Your task to perform on an android device: Show me popular videos on Youtube Image 0: 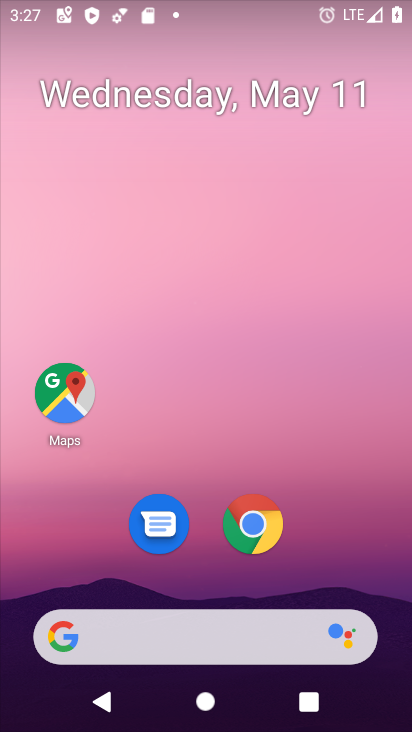
Step 0: drag from (306, 506) to (295, 50)
Your task to perform on an android device: Show me popular videos on Youtube Image 1: 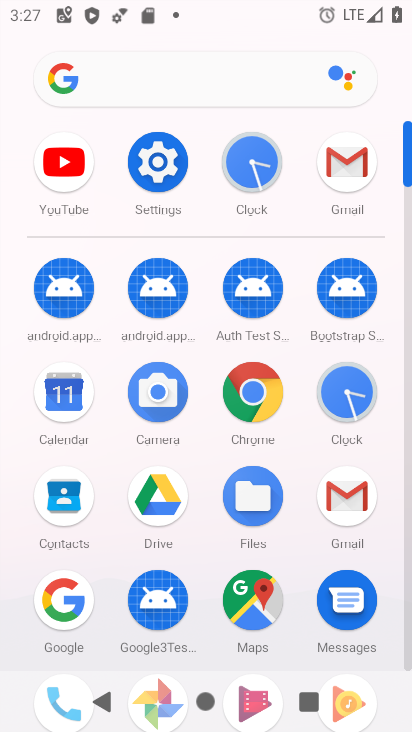
Step 1: drag from (298, 516) to (291, 396)
Your task to perform on an android device: Show me popular videos on Youtube Image 2: 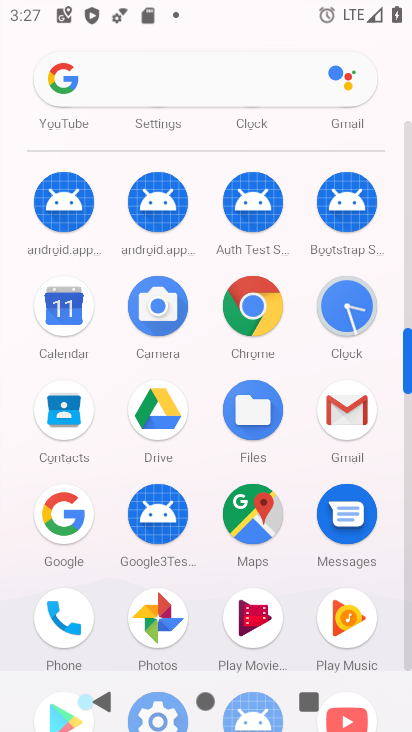
Step 2: drag from (123, 225) to (116, 398)
Your task to perform on an android device: Show me popular videos on Youtube Image 3: 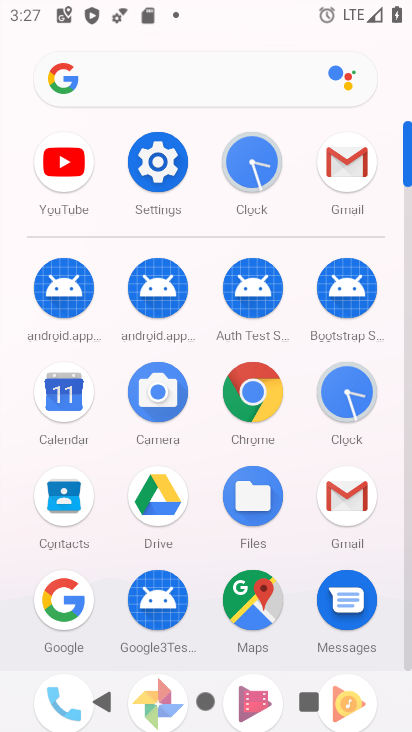
Step 3: click (68, 165)
Your task to perform on an android device: Show me popular videos on Youtube Image 4: 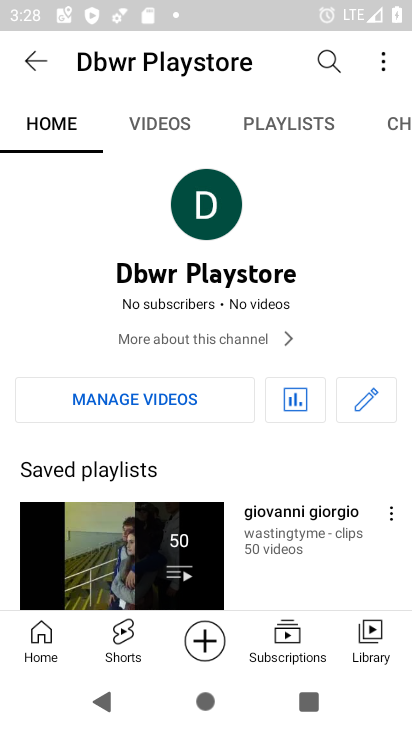
Step 4: click (36, 60)
Your task to perform on an android device: Show me popular videos on Youtube Image 5: 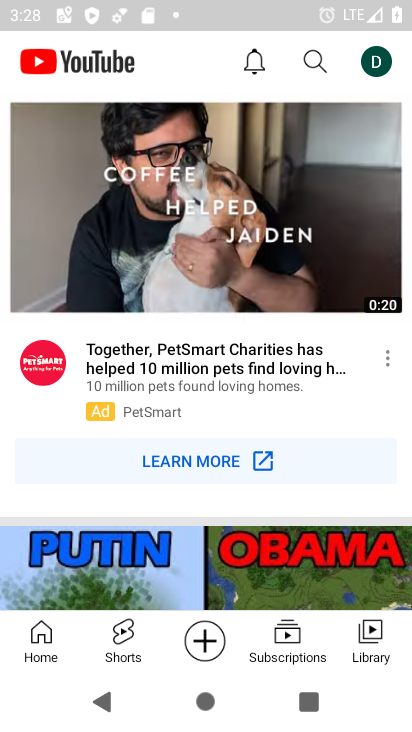
Step 5: click (310, 57)
Your task to perform on an android device: Show me popular videos on Youtube Image 6: 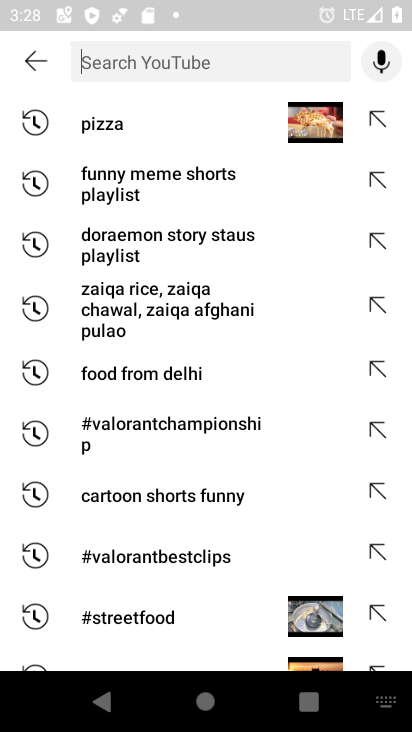
Step 6: type "popular videos"
Your task to perform on an android device: Show me popular videos on Youtube Image 7: 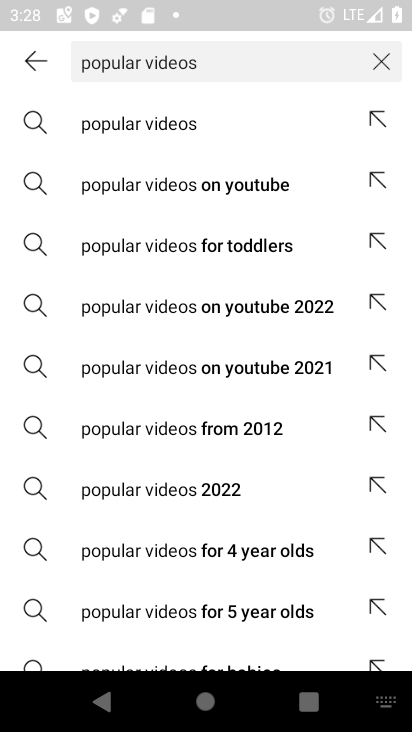
Step 7: click (217, 175)
Your task to perform on an android device: Show me popular videos on Youtube Image 8: 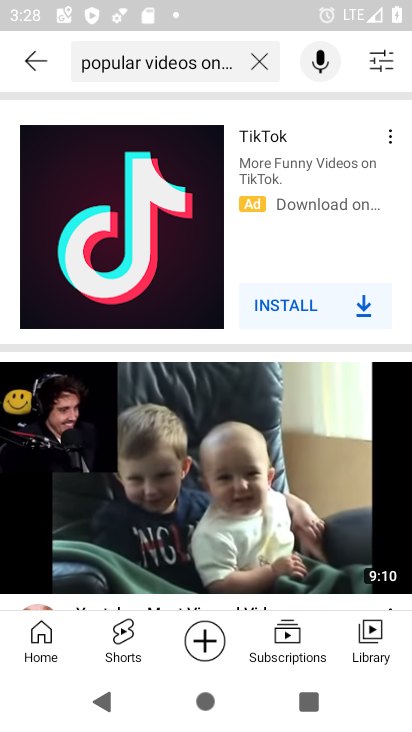
Step 8: task complete